Your task to perform on an android device: change alarm snooze length Image 0: 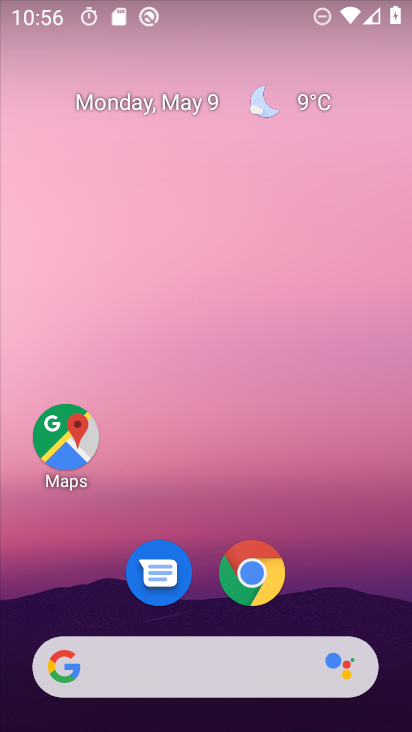
Step 0: drag from (348, 592) to (312, 195)
Your task to perform on an android device: change alarm snooze length Image 1: 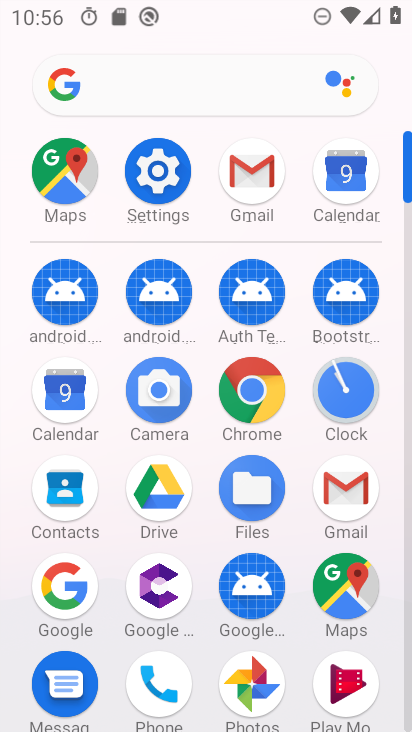
Step 1: click (336, 404)
Your task to perform on an android device: change alarm snooze length Image 2: 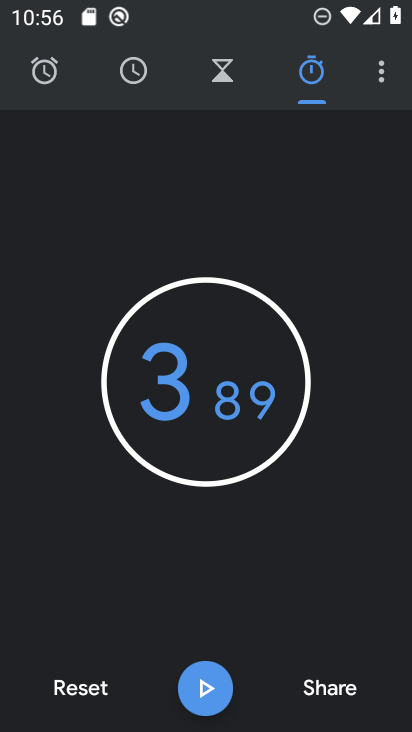
Step 2: click (382, 69)
Your task to perform on an android device: change alarm snooze length Image 3: 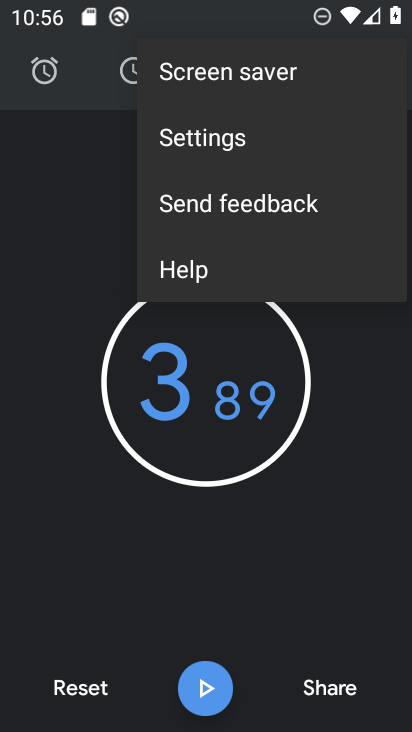
Step 3: click (220, 168)
Your task to perform on an android device: change alarm snooze length Image 4: 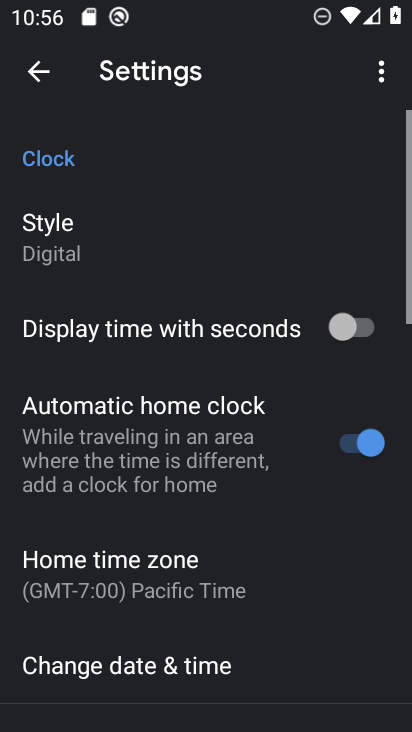
Step 4: drag from (256, 590) to (264, 114)
Your task to perform on an android device: change alarm snooze length Image 5: 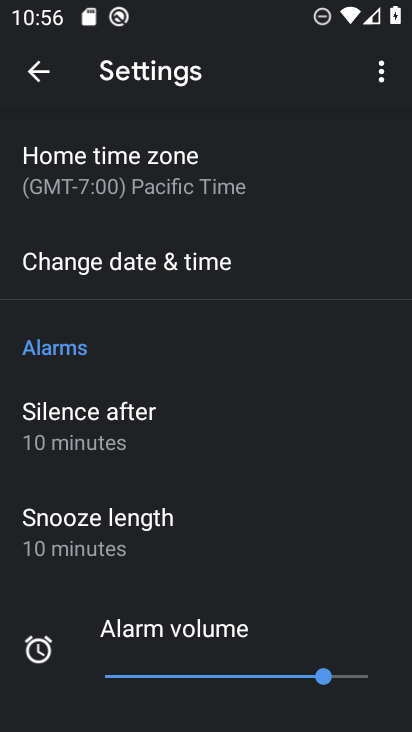
Step 5: click (151, 536)
Your task to perform on an android device: change alarm snooze length Image 6: 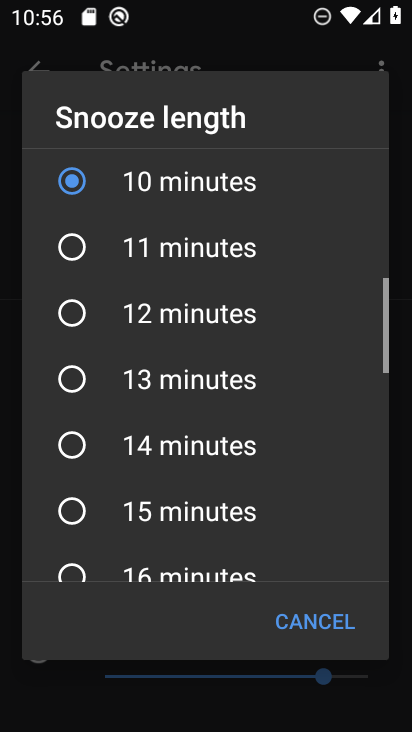
Step 6: click (263, 249)
Your task to perform on an android device: change alarm snooze length Image 7: 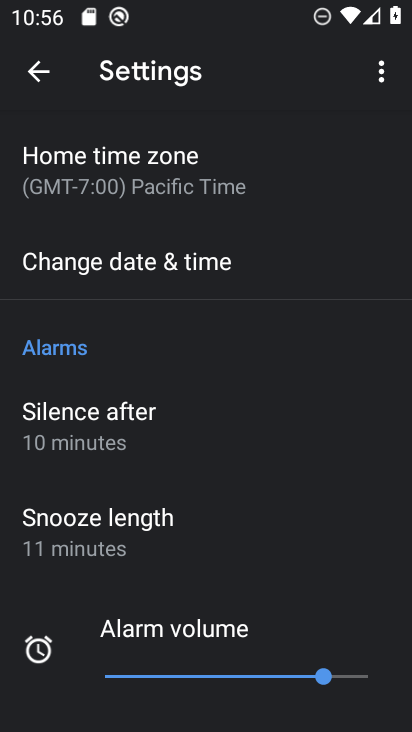
Step 7: task complete